Your task to perform on an android device: turn on showing notifications on the lock screen Image 0: 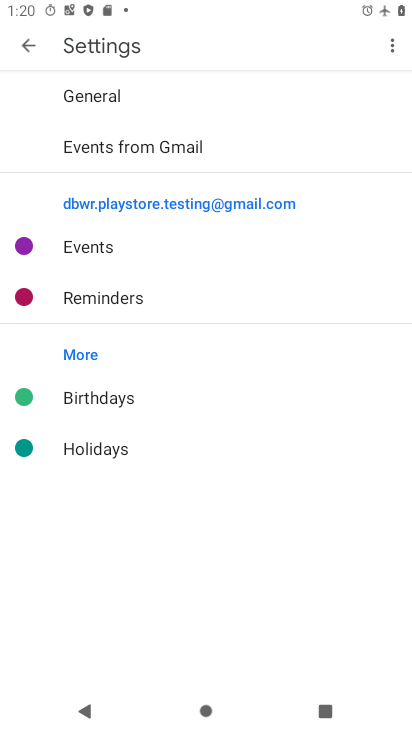
Step 0: click (52, 371)
Your task to perform on an android device: turn on showing notifications on the lock screen Image 1: 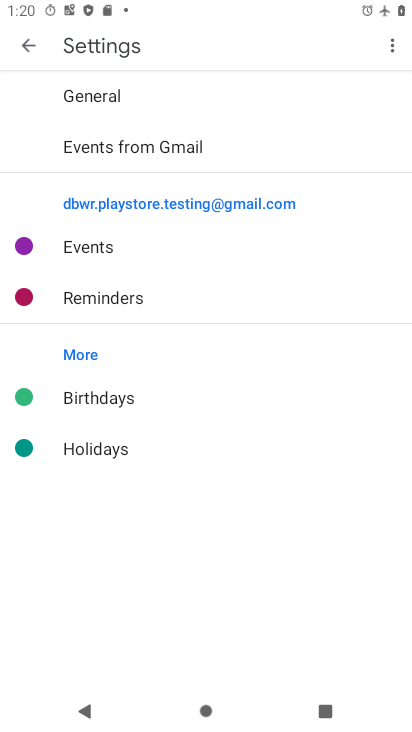
Step 1: press home button
Your task to perform on an android device: turn on showing notifications on the lock screen Image 2: 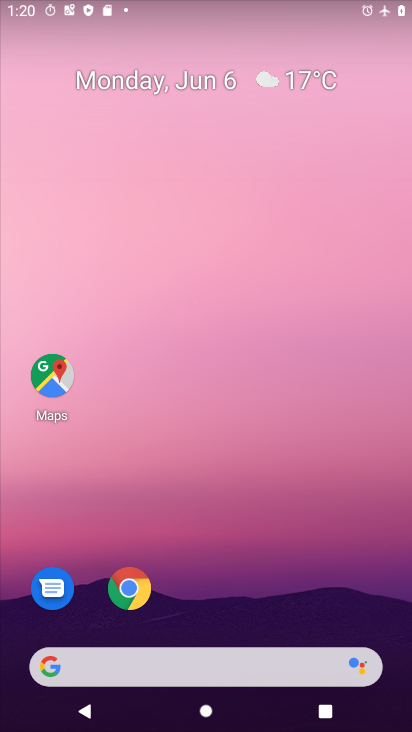
Step 2: click (158, 229)
Your task to perform on an android device: turn on showing notifications on the lock screen Image 3: 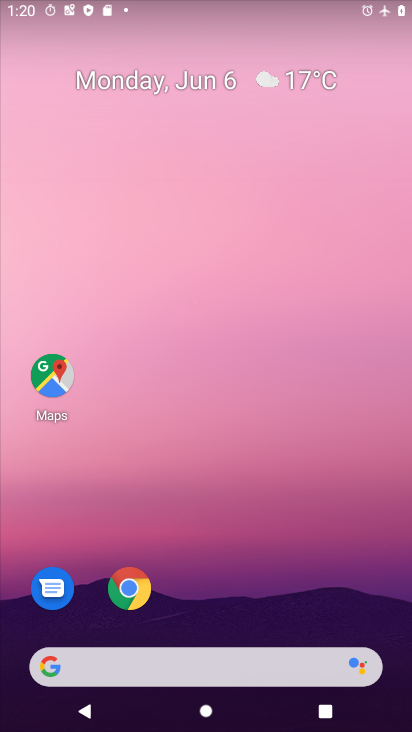
Step 3: drag from (129, 519) to (162, 157)
Your task to perform on an android device: turn on showing notifications on the lock screen Image 4: 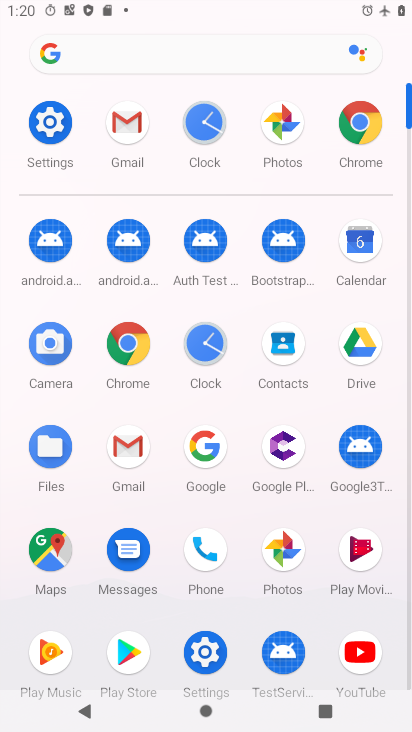
Step 4: click (59, 121)
Your task to perform on an android device: turn on showing notifications on the lock screen Image 5: 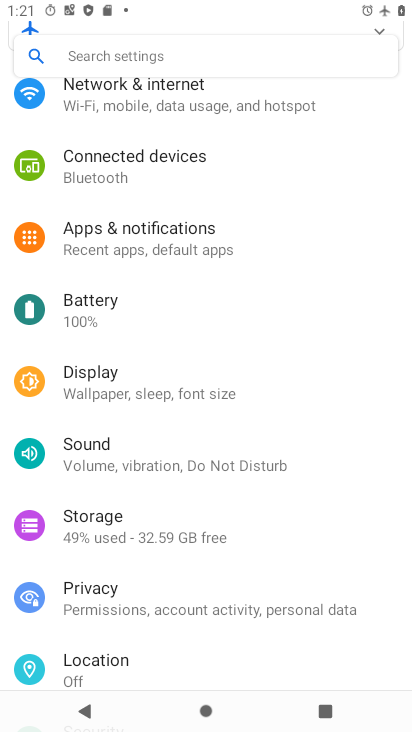
Step 5: click (173, 232)
Your task to perform on an android device: turn on showing notifications on the lock screen Image 6: 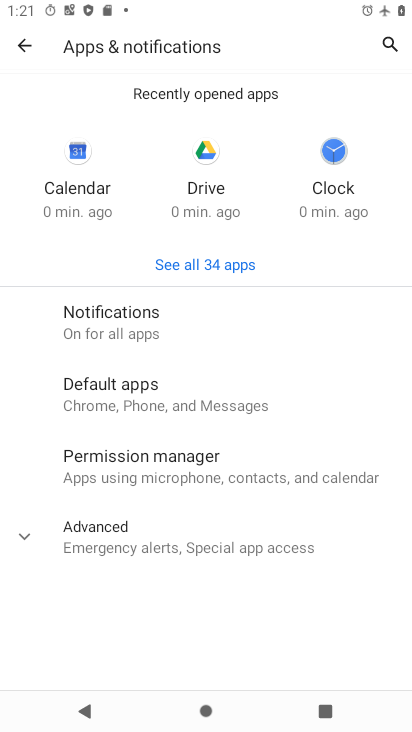
Step 6: click (127, 317)
Your task to perform on an android device: turn on showing notifications on the lock screen Image 7: 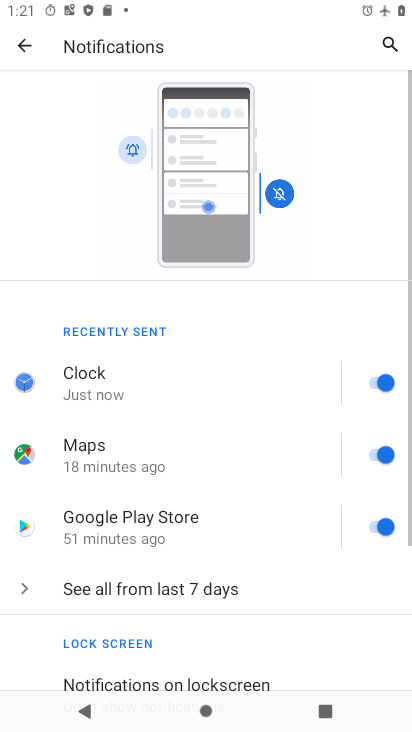
Step 7: drag from (202, 605) to (237, 253)
Your task to perform on an android device: turn on showing notifications on the lock screen Image 8: 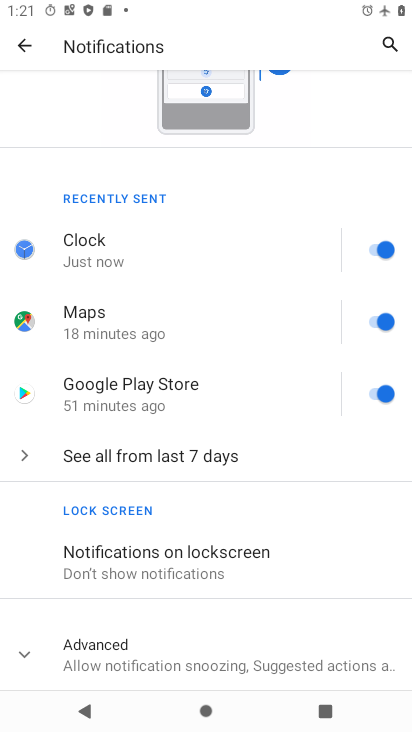
Step 8: click (167, 566)
Your task to perform on an android device: turn on showing notifications on the lock screen Image 9: 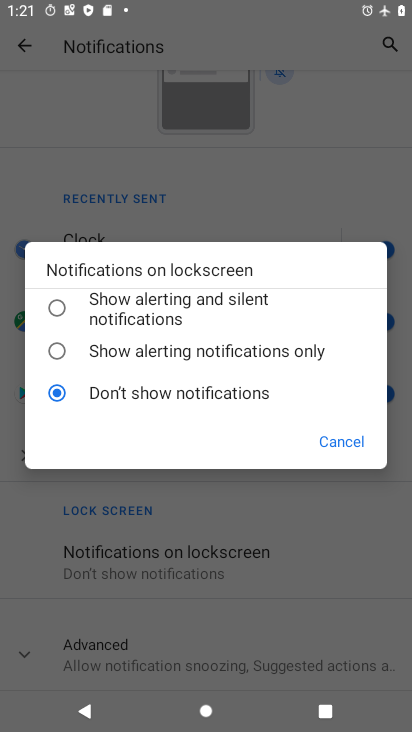
Step 9: click (233, 357)
Your task to perform on an android device: turn on showing notifications on the lock screen Image 10: 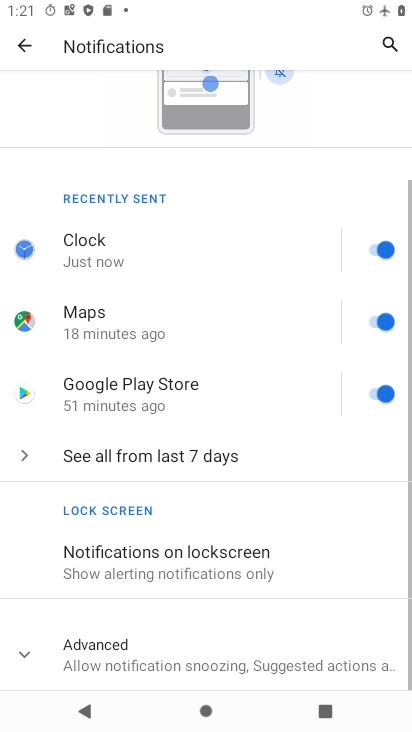
Step 10: task complete